Your task to perform on an android device: Show me popular videos on Youtube Image 0: 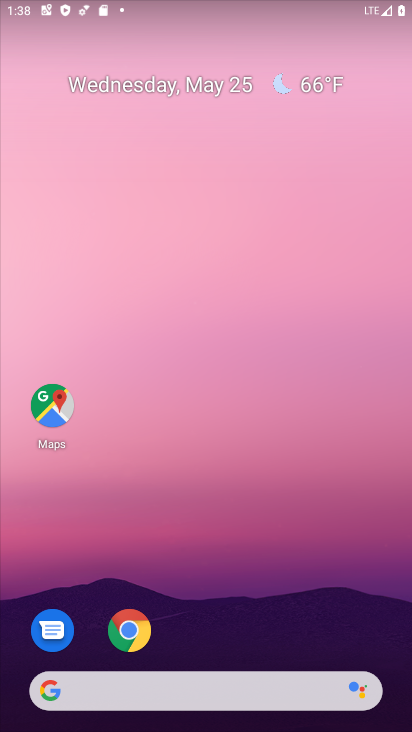
Step 0: press home button
Your task to perform on an android device: Show me popular videos on Youtube Image 1: 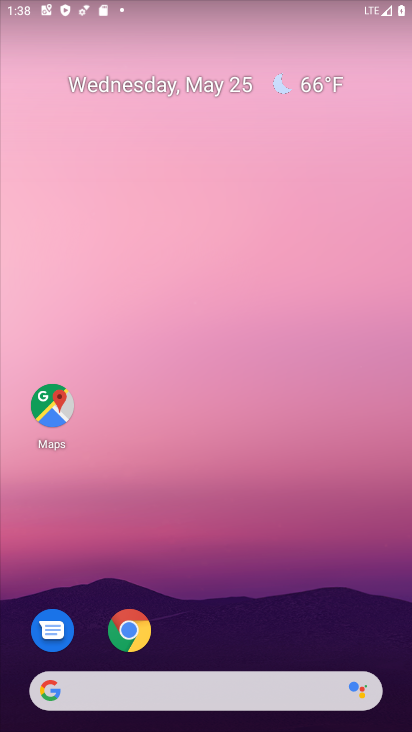
Step 1: drag from (199, 651) to (201, 127)
Your task to perform on an android device: Show me popular videos on Youtube Image 2: 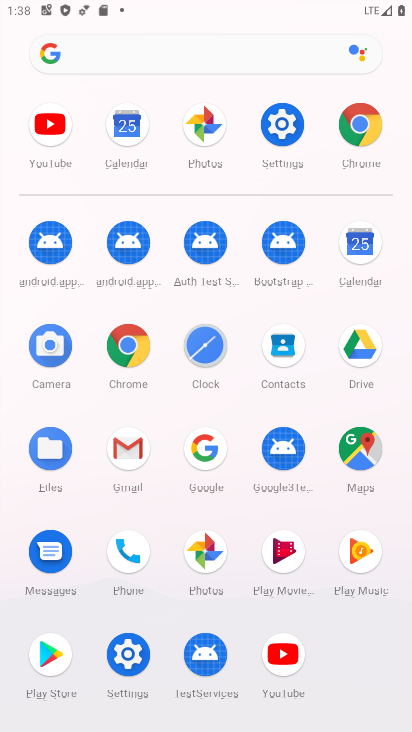
Step 2: click (285, 649)
Your task to perform on an android device: Show me popular videos on Youtube Image 3: 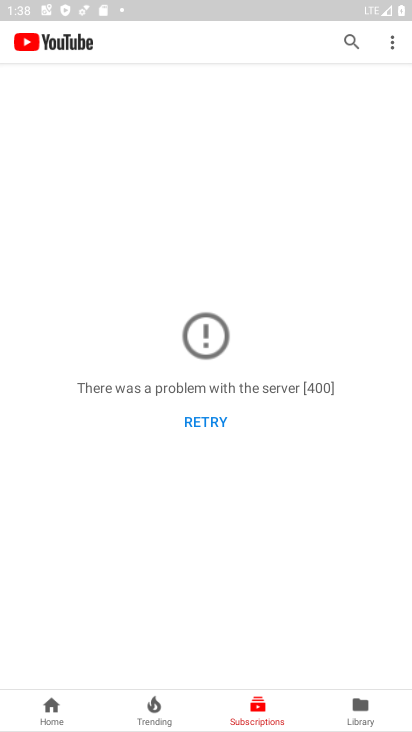
Step 3: click (149, 706)
Your task to perform on an android device: Show me popular videos on Youtube Image 4: 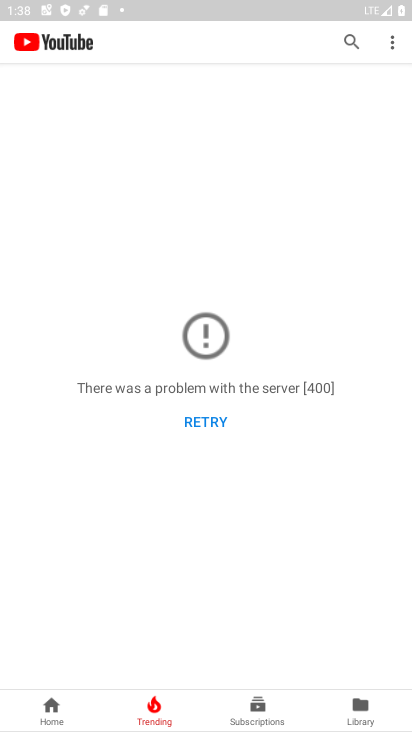
Step 4: click (207, 415)
Your task to perform on an android device: Show me popular videos on Youtube Image 5: 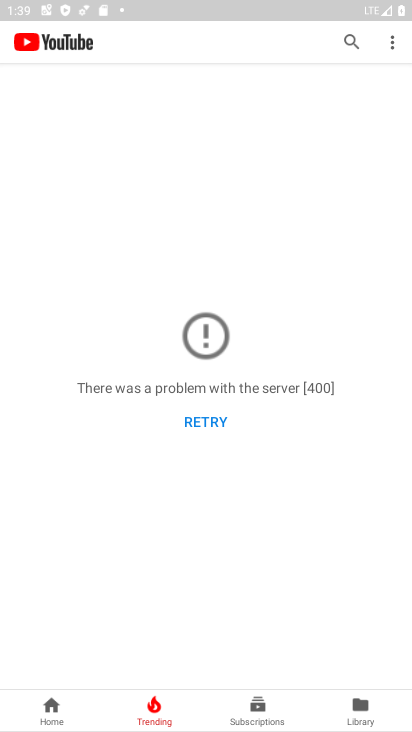
Step 5: task complete